Your task to perform on an android device: star an email in the gmail app Image 0: 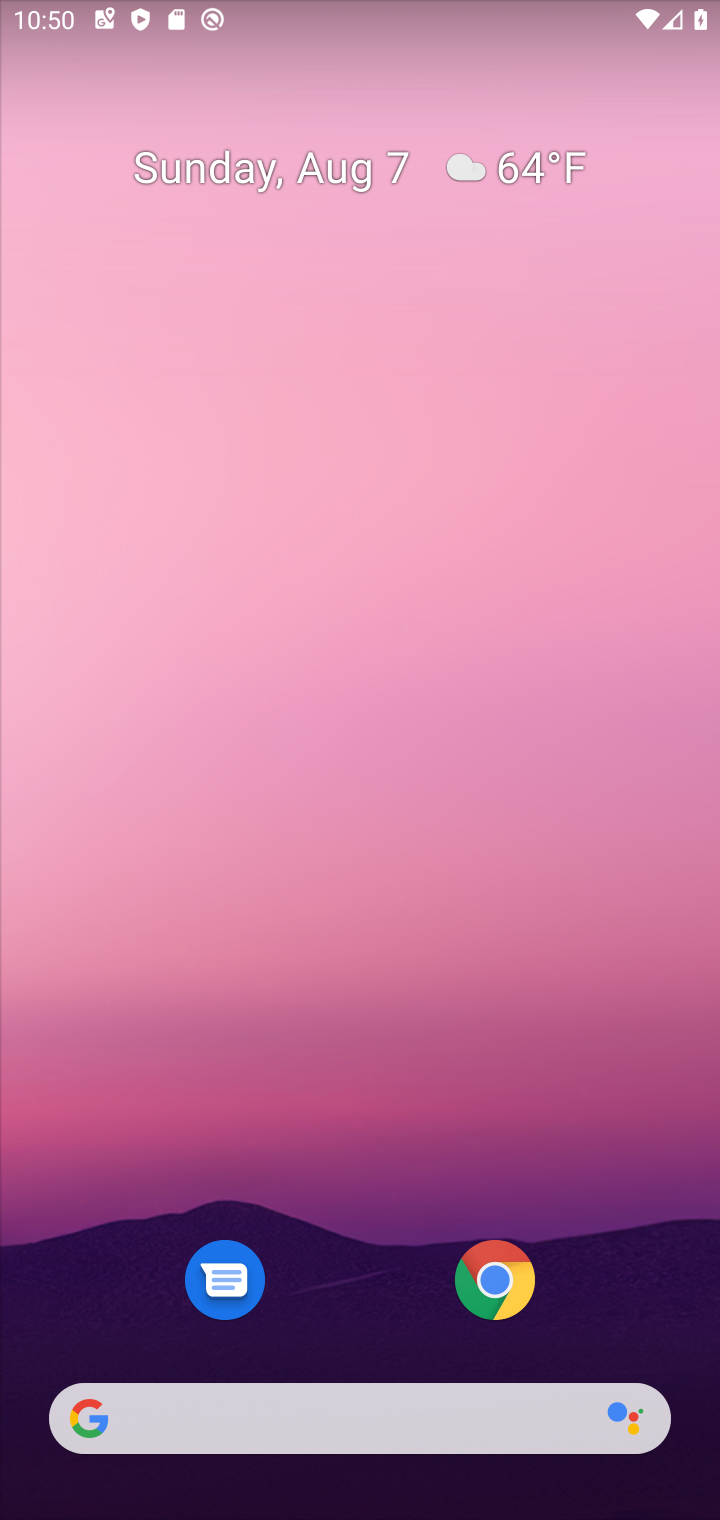
Step 0: drag from (390, 1198) to (551, 202)
Your task to perform on an android device: star an email in the gmail app Image 1: 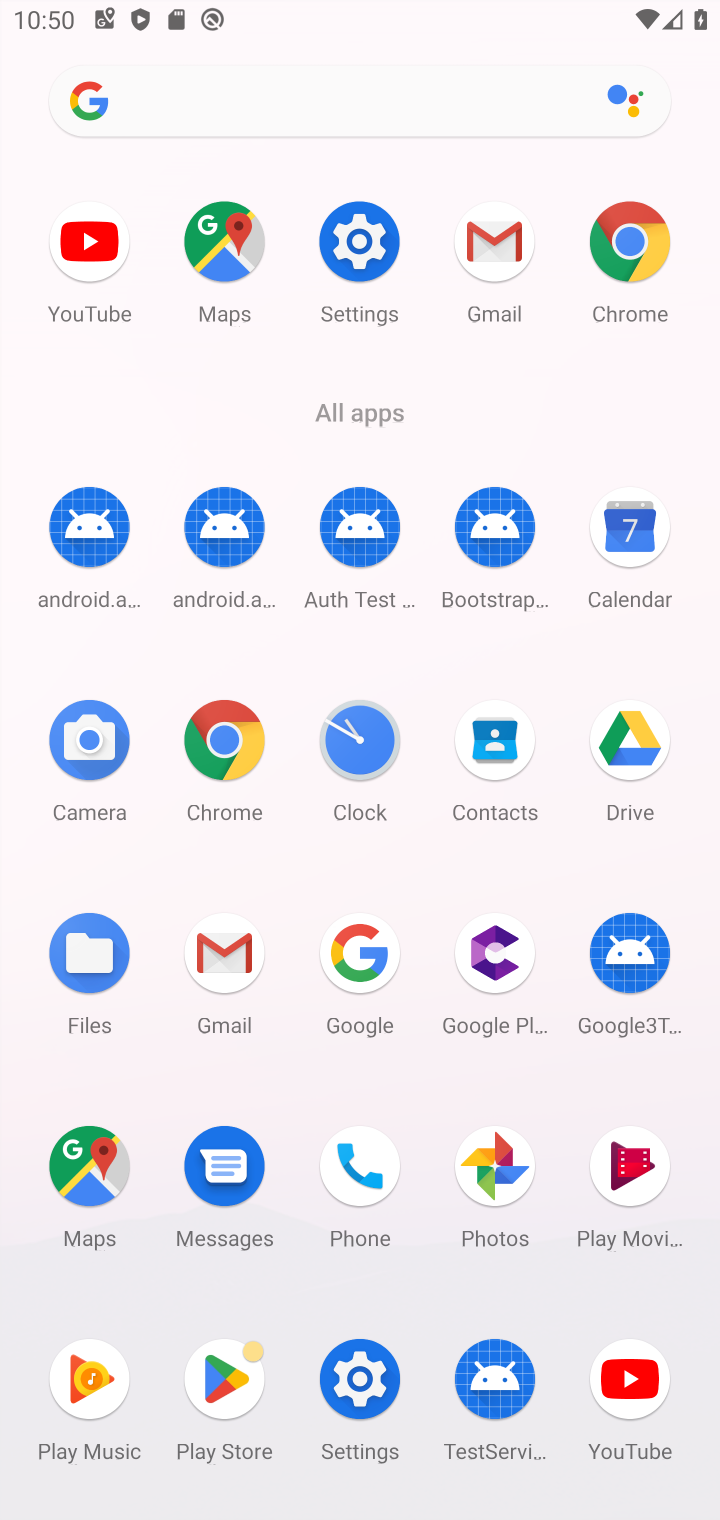
Step 1: click (504, 239)
Your task to perform on an android device: star an email in the gmail app Image 2: 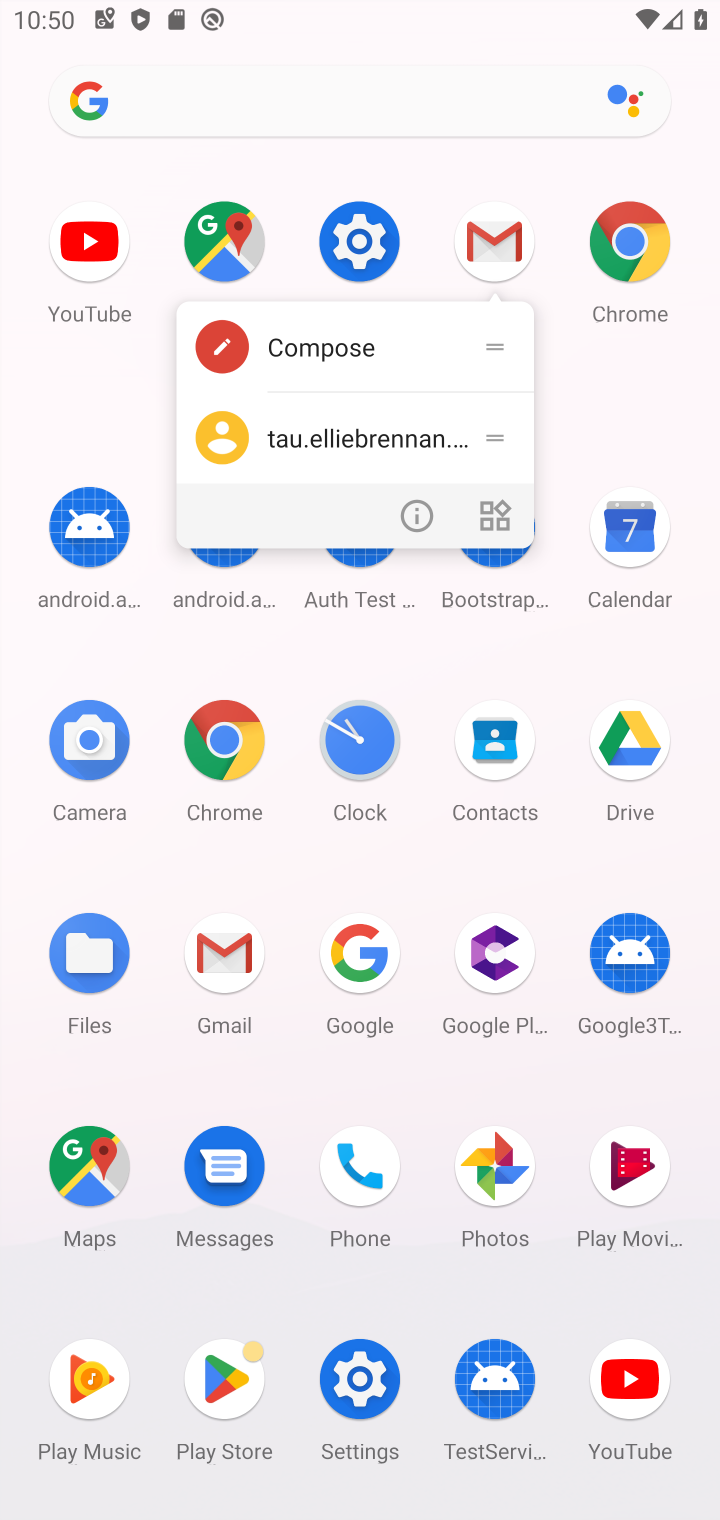
Step 2: click (494, 248)
Your task to perform on an android device: star an email in the gmail app Image 3: 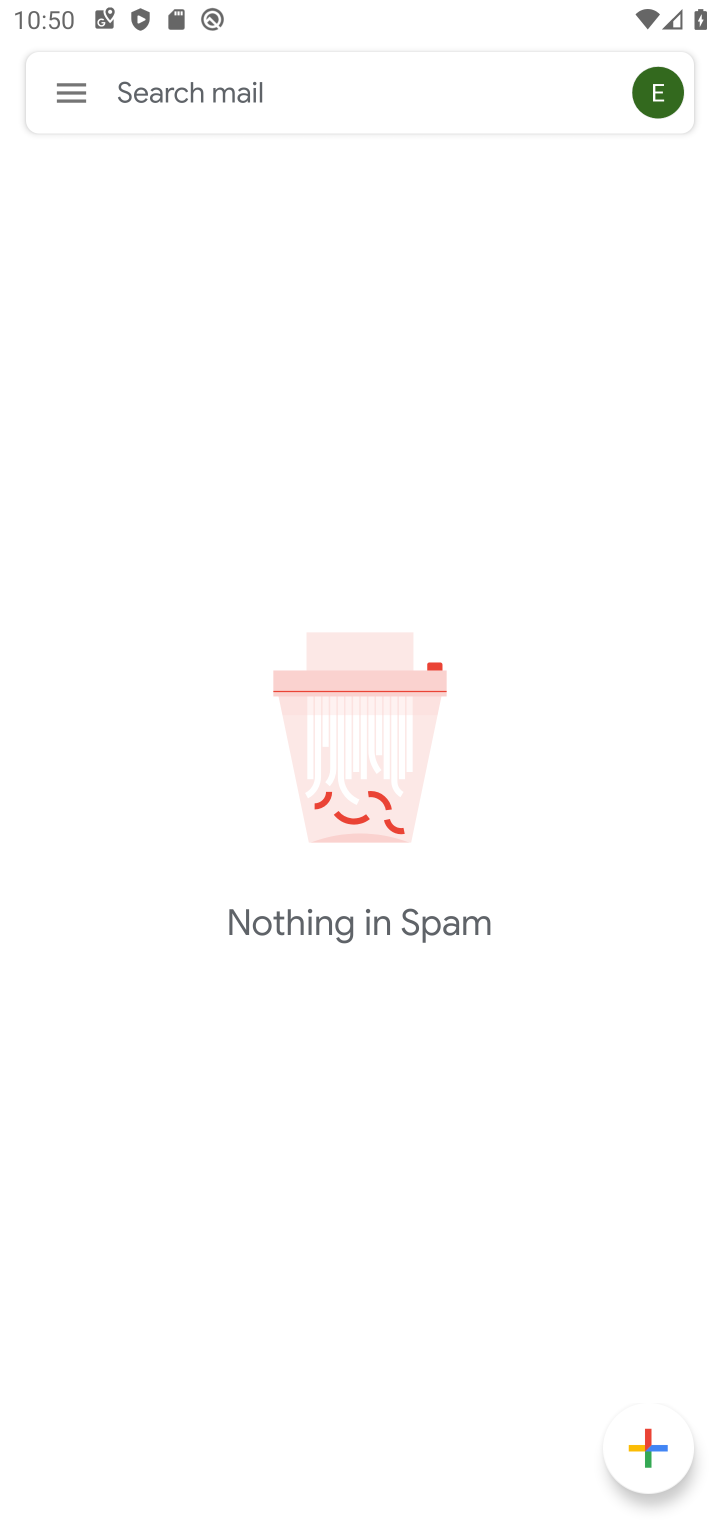
Step 3: click (84, 86)
Your task to perform on an android device: star an email in the gmail app Image 4: 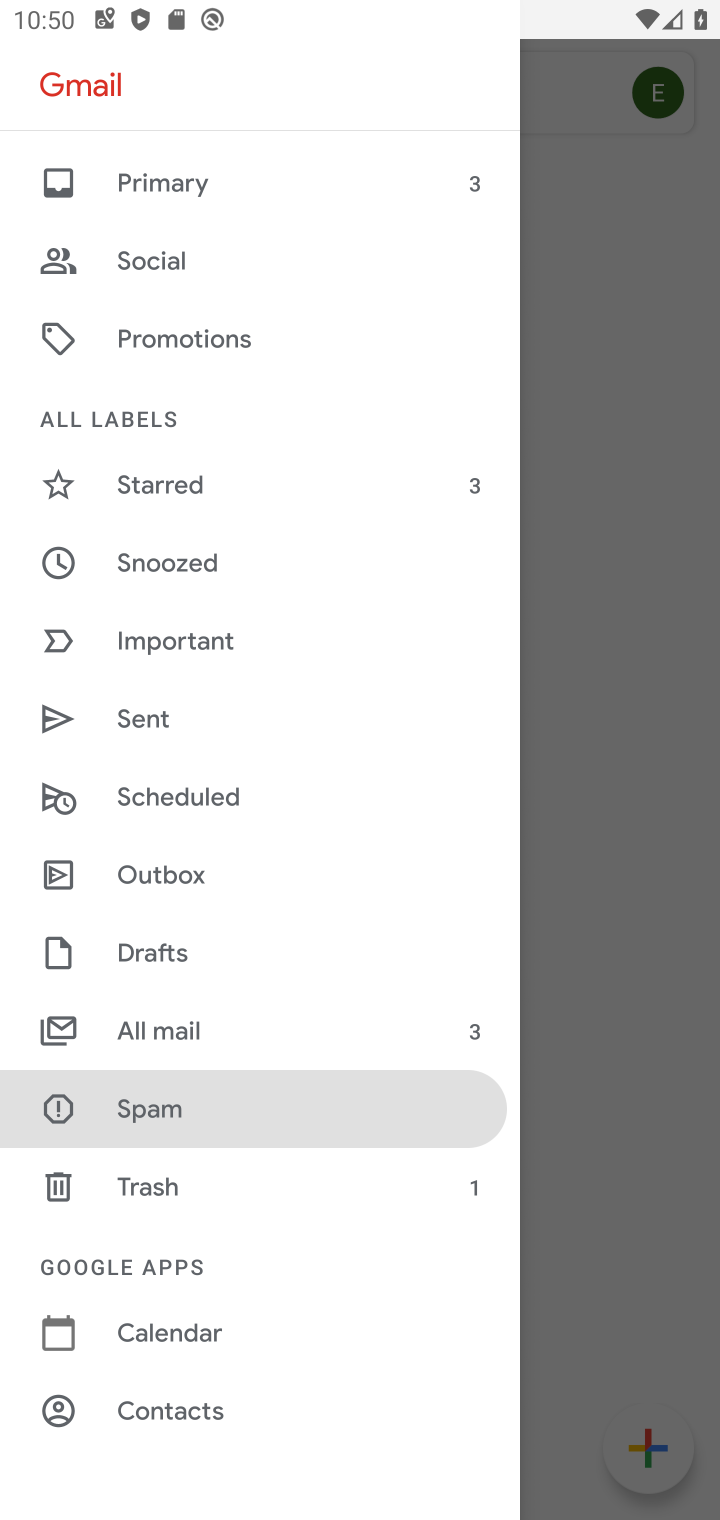
Step 4: click (187, 1033)
Your task to perform on an android device: star an email in the gmail app Image 5: 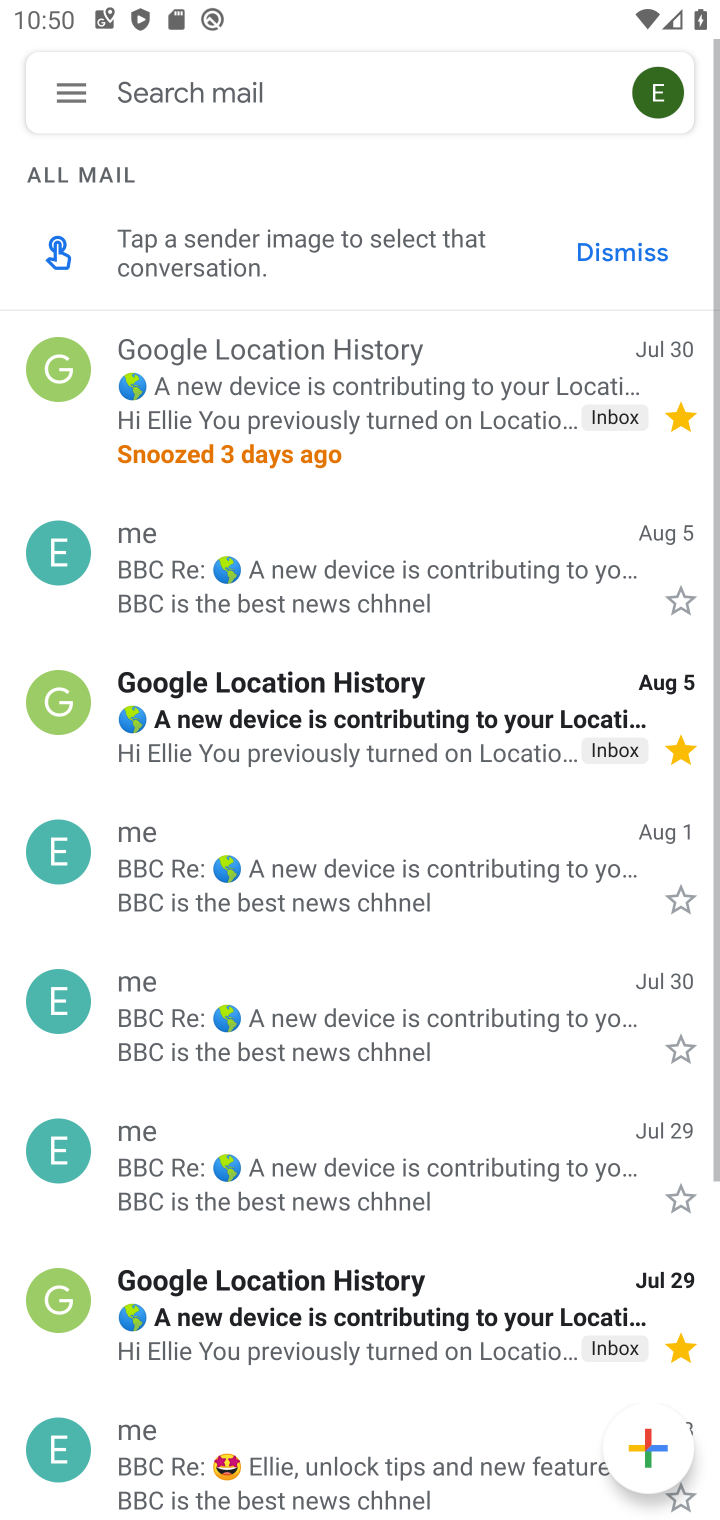
Step 5: click (688, 593)
Your task to perform on an android device: star an email in the gmail app Image 6: 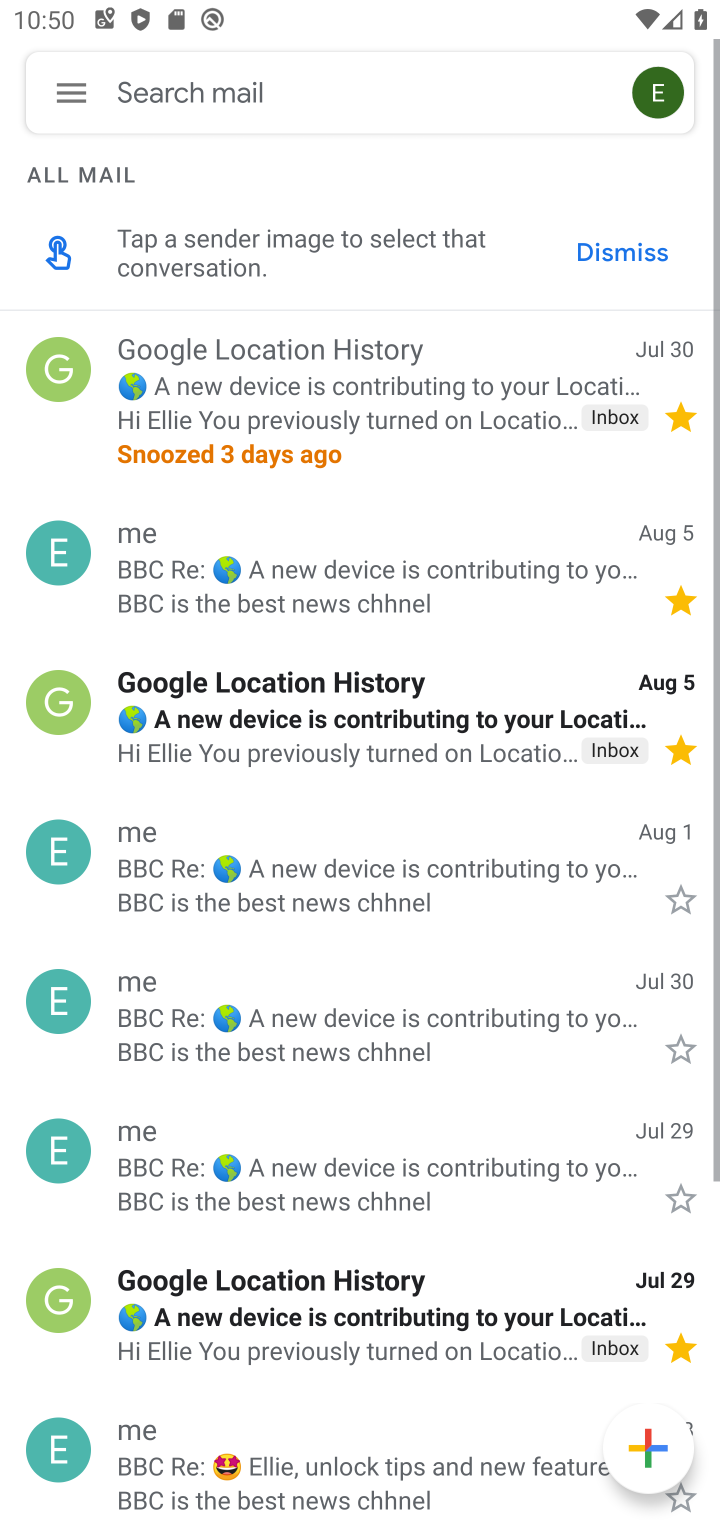
Step 6: task complete